Your task to perform on an android device: Do I have any events this weekend? Image 0: 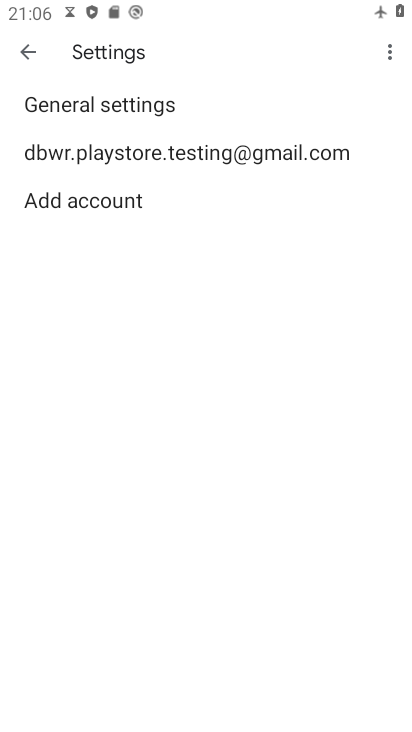
Step 0: press back button
Your task to perform on an android device: Do I have any events this weekend? Image 1: 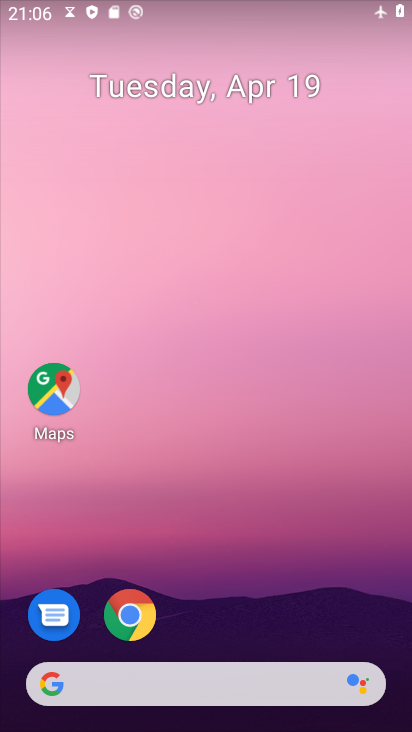
Step 1: drag from (214, 516) to (218, 30)
Your task to perform on an android device: Do I have any events this weekend? Image 2: 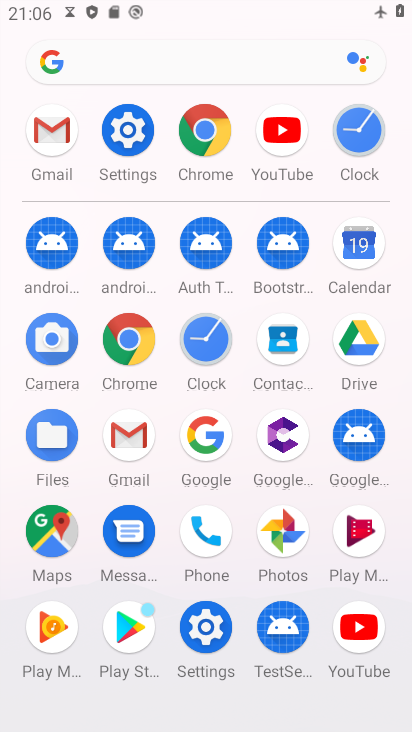
Step 2: click (359, 241)
Your task to perform on an android device: Do I have any events this weekend? Image 3: 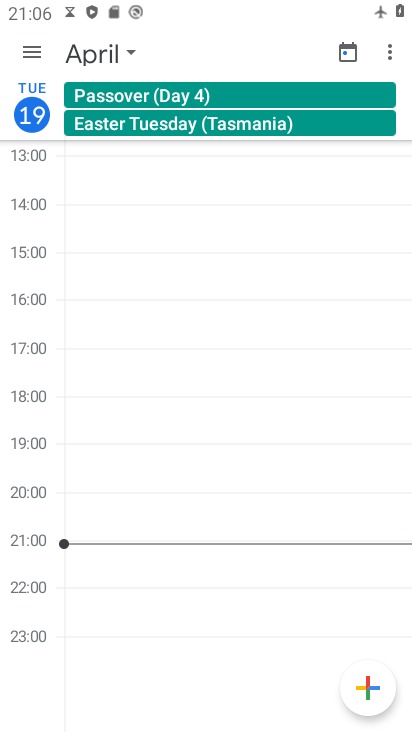
Step 3: click (35, 44)
Your task to perform on an android device: Do I have any events this weekend? Image 4: 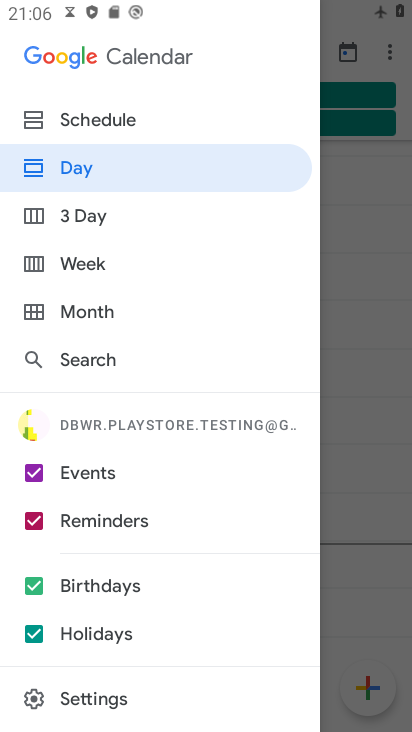
Step 4: click (32, 517)
Your task to perform on an android device: Do I have any events this weekend? Image 5: 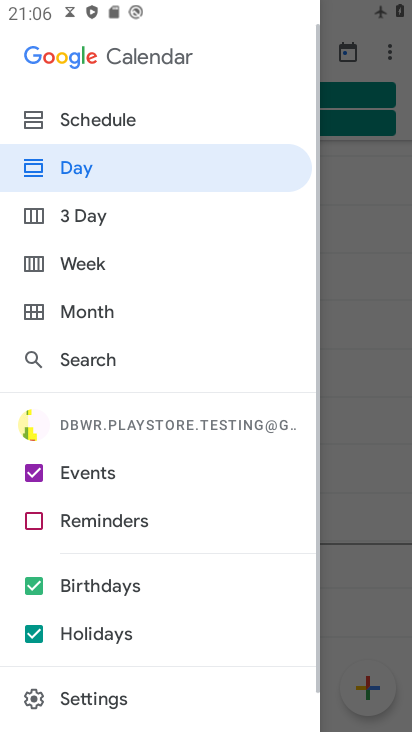
Step 5: click (31, 590)
Your task to perform on an android device: Do I have any events this weekend? Image 6: 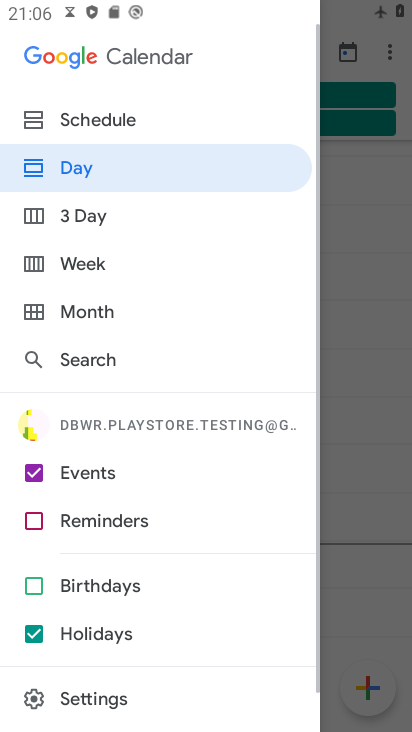
Step 6: click (32, 634)
Your task to perform on an android device: Do I have any events this weekend? Image 7: 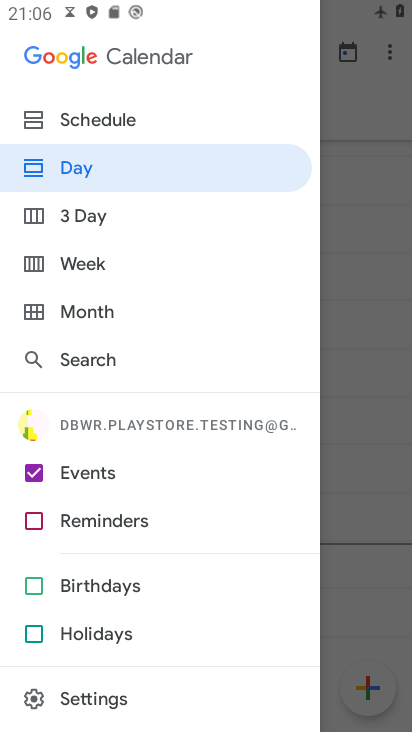
Step 7: click (109, 264)
Your task to perform on an android device: Do I have any events this weekend? Image 8: 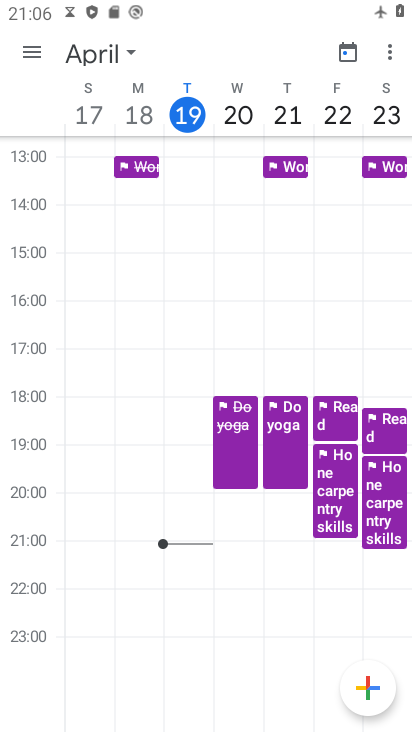
Step 8: task complete